Your task to perform on an android device: toggle notification dots Image 0: 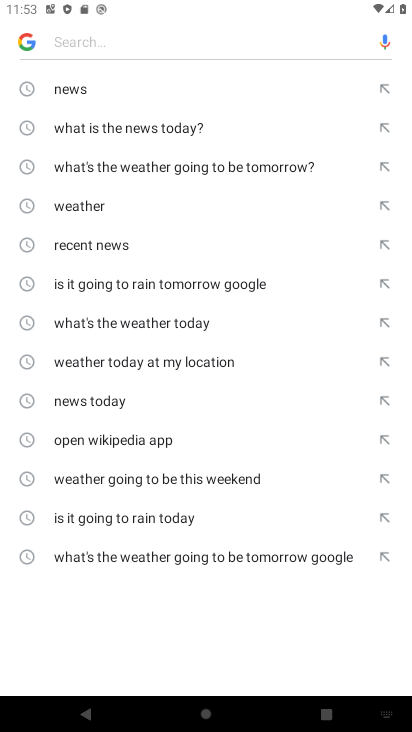
Step 0: press home button
Your task to perform on an android device: toggle notification dots Image 1: 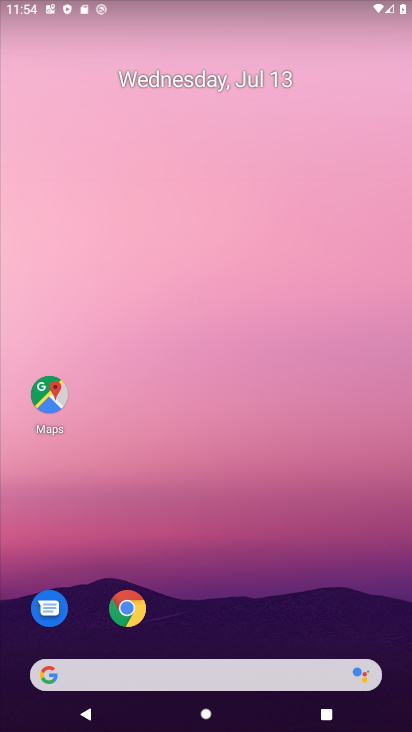
Step 1: drag from (282, 703) to (209, 3)
Your task to perform on an android device: toggle notification dots Image 2: 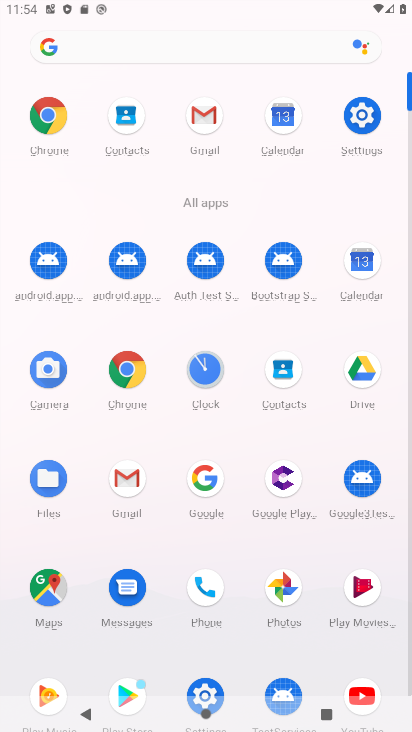
Step 2: click (376, 114)
Your task to perform on an android device: toggle notification dots Image 3: 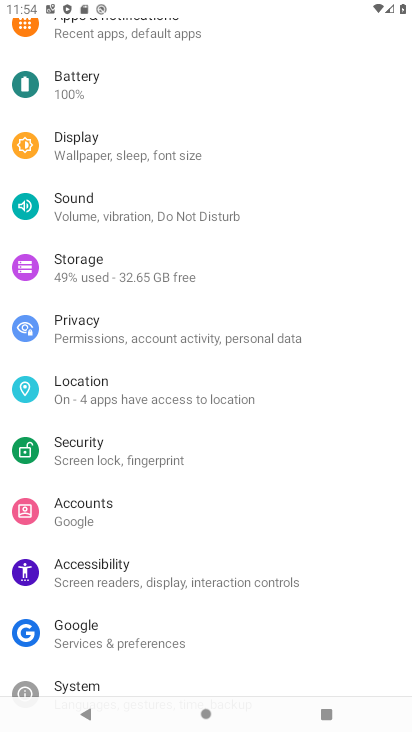
Step 3: drag from (248, 625) to (193, 111)
Your task to perform on an android device: toggle notification dots Image 4: 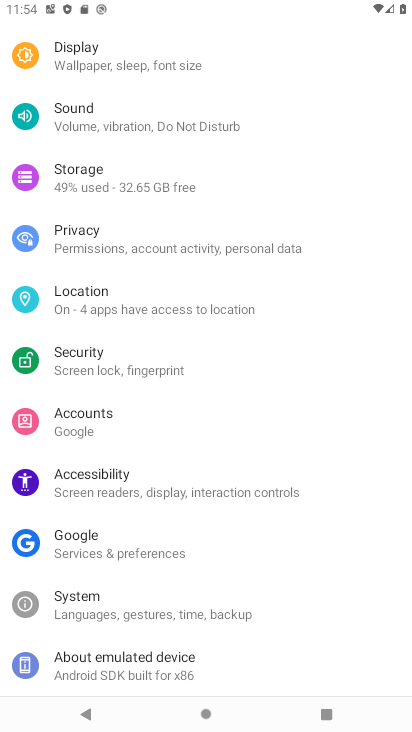
Step 4: drag from (312, 652) to (351, 126)
Your task to perform on an android device: toggle notification dots Image 5: 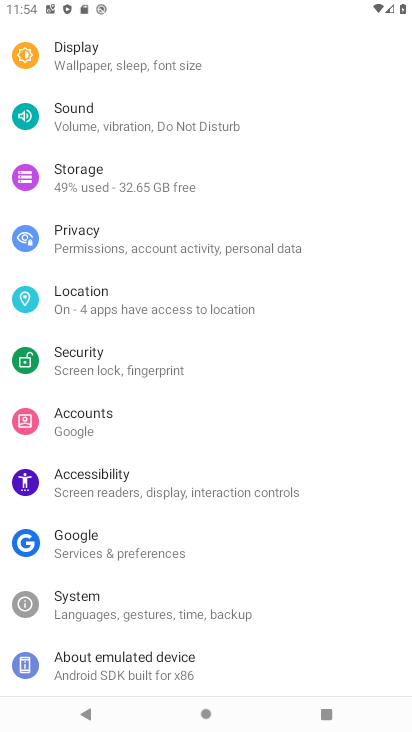
Step 5: drag from (295, 142) to (225, 717)
Your task to perform on an android device: toggle notification dots Image 6: 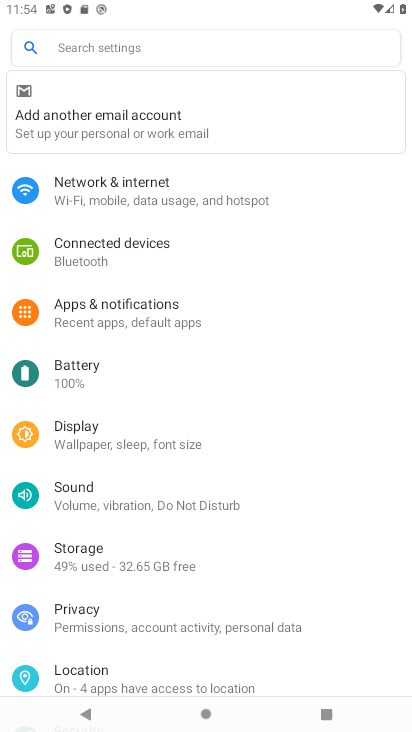
Step 6: click (190, 318)
Your task to perform on an android device: toggle notification dots Image 7: 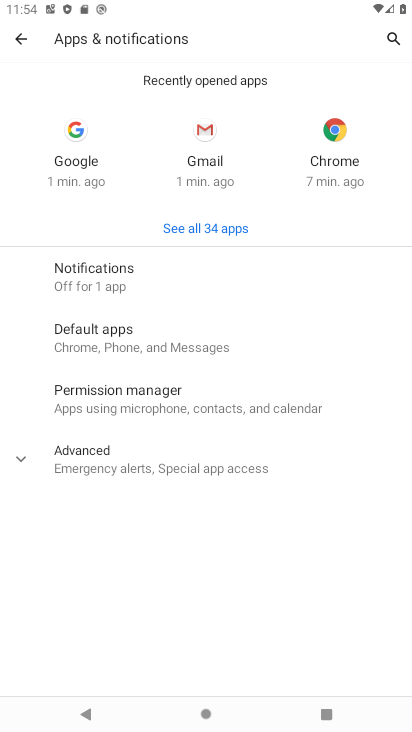
Step 7: click (221, 450)
Your task to perform on an android device: toggle notification dots Image 8: 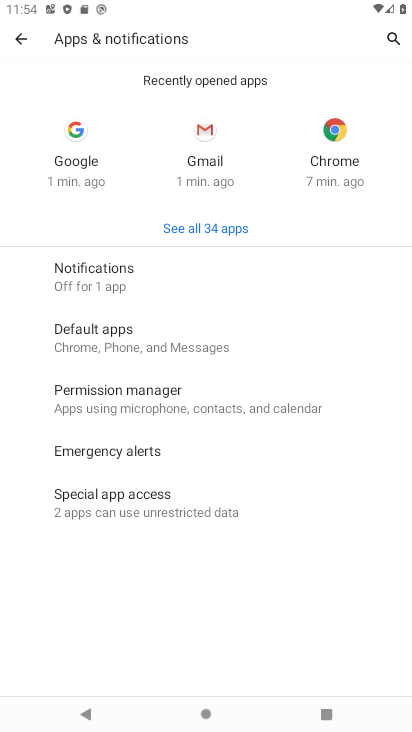
Step 8: click (126, 272)
Your task to perform on an android device: toggle notification dots Image 9: 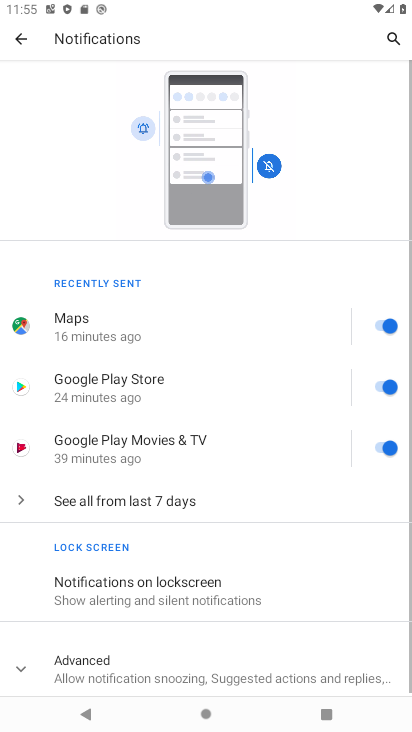
Step 9: drag from (295, 634) to (359, 106)
Your task to perform on an android device: toggle notification dots Image 10: 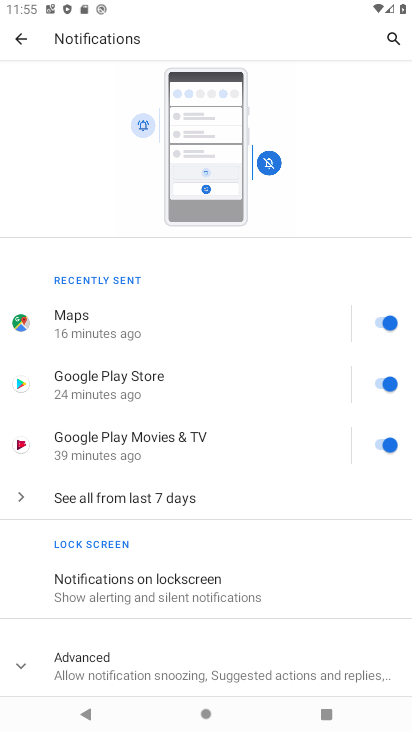
Step 10: click (270, 672)
Your task to perform on an android device: toggle notification dots Image 11: 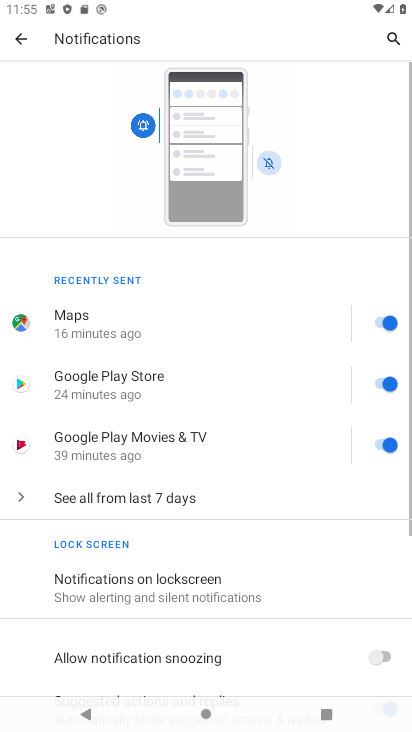
Step 11: drag from (267, 374) to (300, 190)
Your task to perform on an android device: toggle notification dots Image 12: 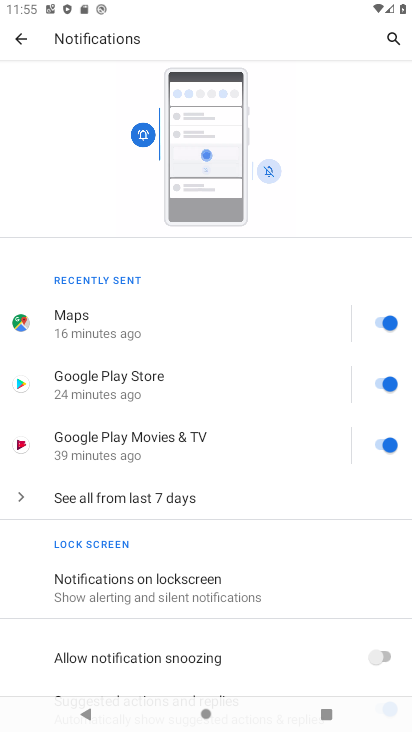
Step 12: drag from (229, 648) to (210, 2)
Your task to perform on an android device: toggle notification dots Image 13: 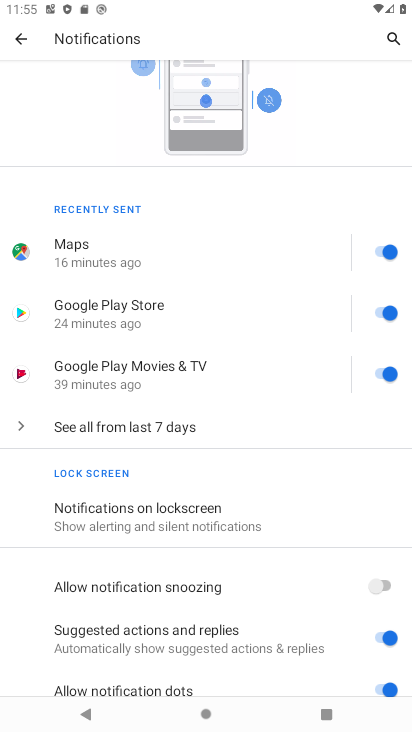
Step 13: drag from (259, 626) to (322, 76)
Your task to perform on an android device: toggle notification dots Image 14: 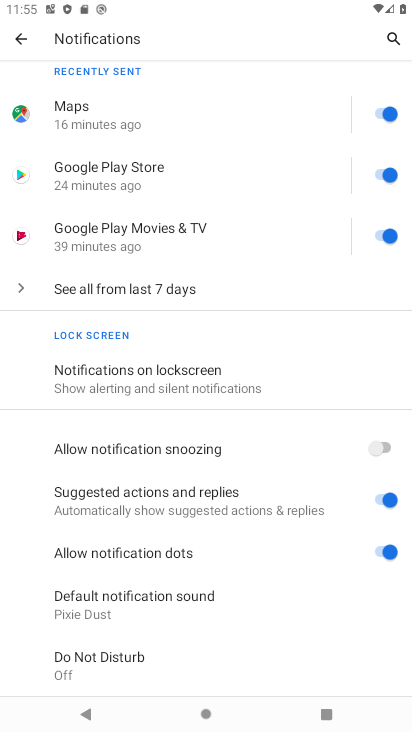
Step 14: click (385, 553)
Your task to perform on an android device: toggle notification dots Image 15: 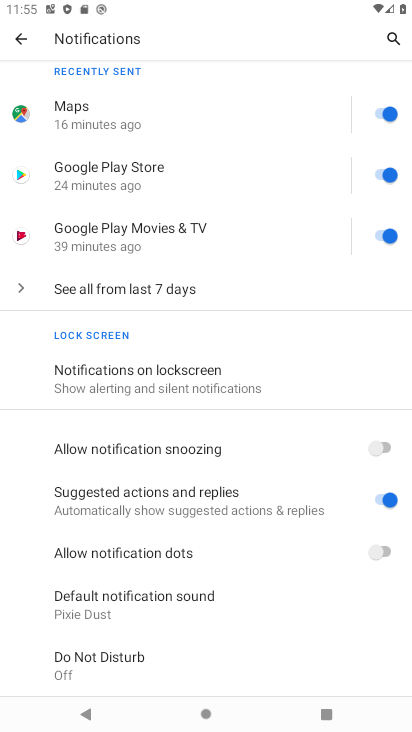
Step 15: task complete